Your task to perform on an android device: turn on the 24-hour format for clock Image 0: 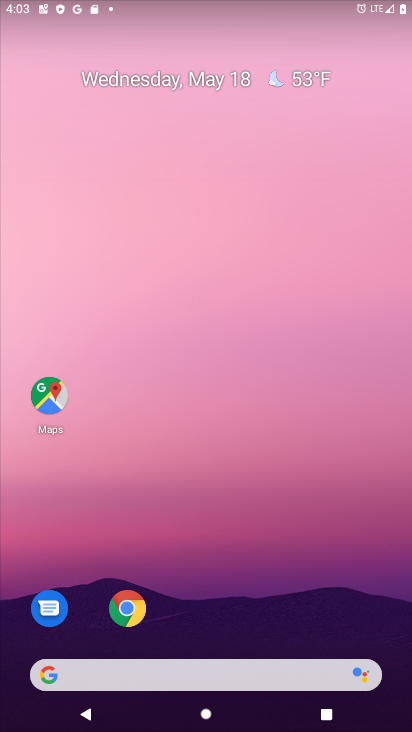
Step 0: drag from (318, 609) to (337, 5)
Your task to perform on an android device: turn on the 24-hour format for clock Image 1: 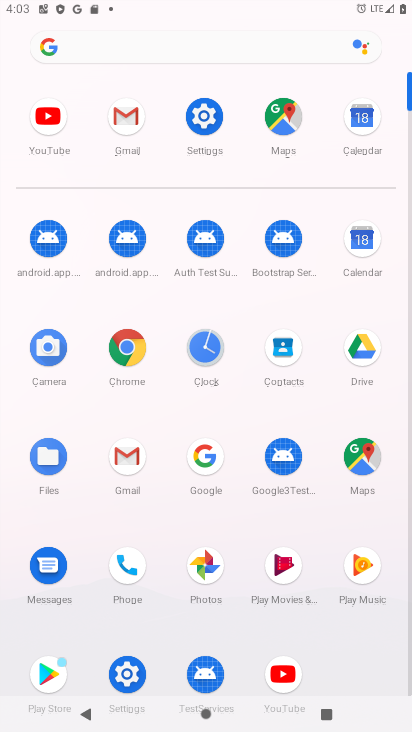
Step 1: click (204, 346)
Your task to perform on an android device: turn on the 24-hour format for clock Image 2: 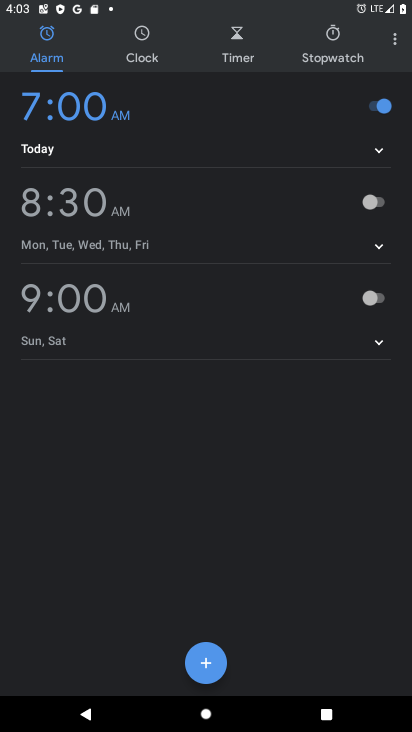
Step 2: click (396, 41)
Your task to perform on an android device: turn on the 24-hour format for clock Image 3: 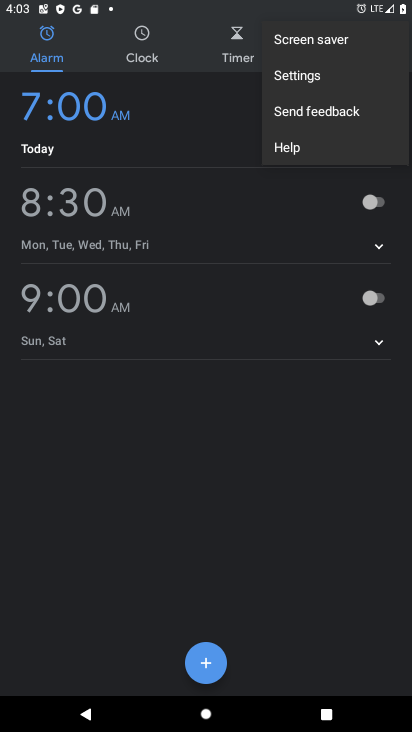
Step 3: click (298, 81)
Your task to perform on an android device: turn on the 24-hour format for clock Image 4: 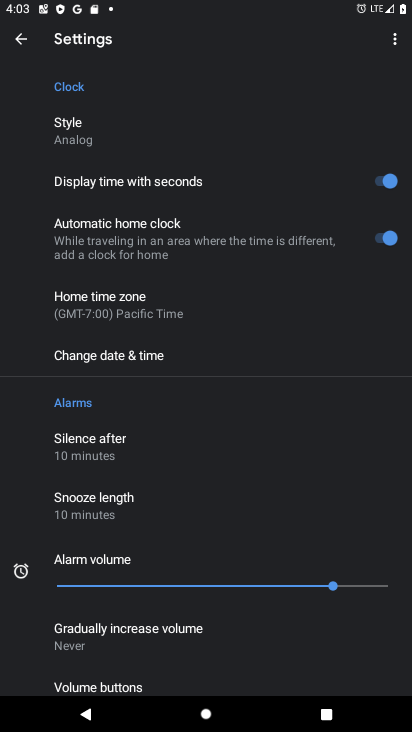
Step 4: click (107, 353)
Your task to perform on an android device: turn on the 24-hour format for clock Image 5: 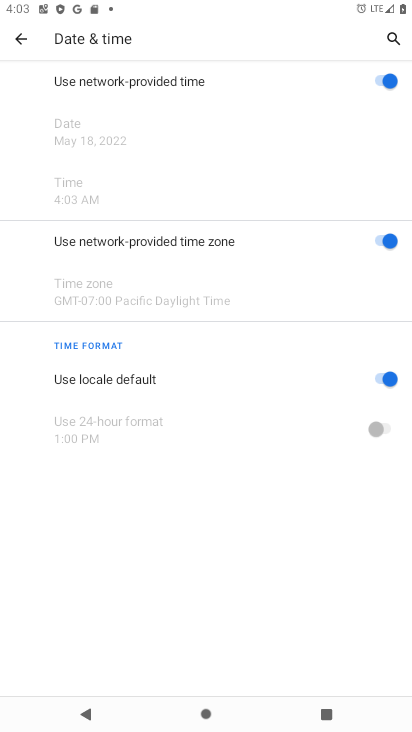
Step 5: click (386, 427)
Your task to perform on an android device: turn on the 24-hour format for clock Image 6: 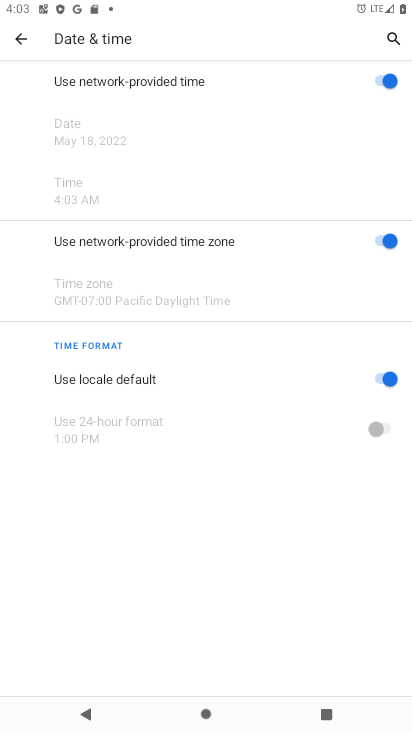
Step 6: click (399, 390)
Your task to perform on an android device: turn on the 24-hour format for clock Image 7: 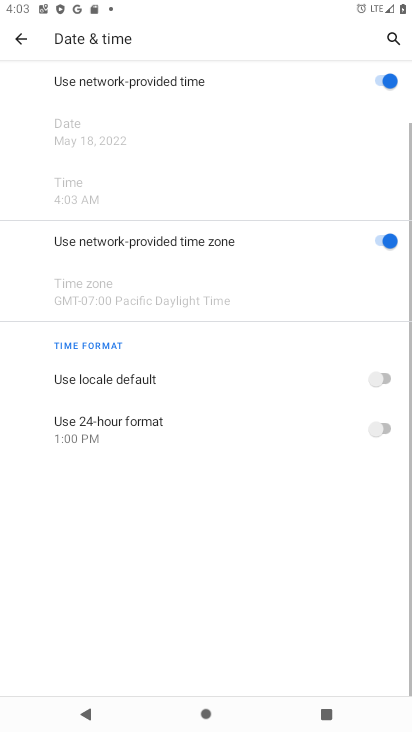
Step 7: click (382, 437)
Your task to perform on an android device: turn on the 24-hour format for clock Image 8: 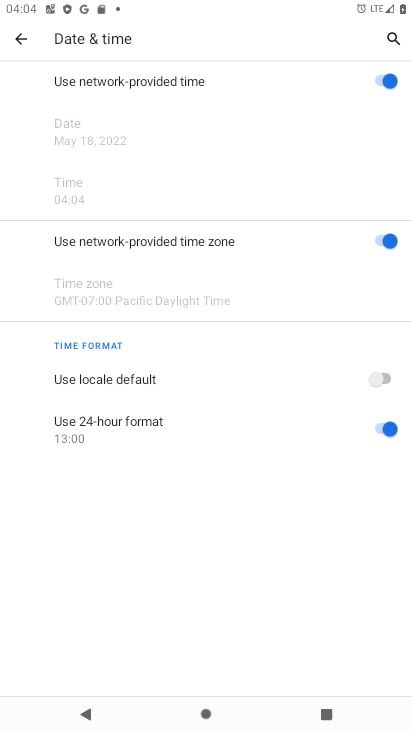
Step 8: task complete